Your task to perform on an android device: empty trash in google photos Image 0: 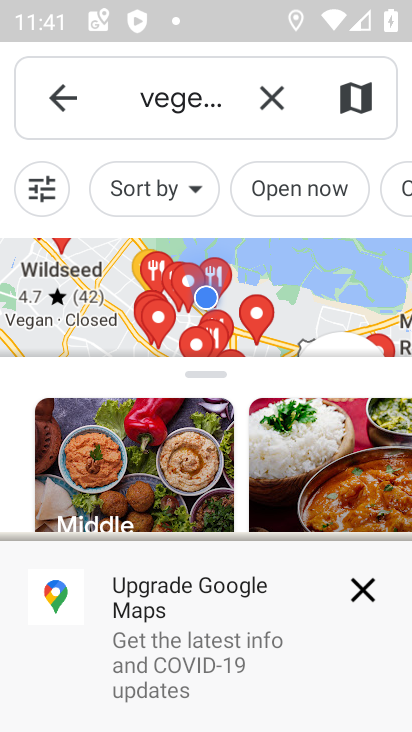
Step 0: press home button
Your task to perform on an android device: empty trash in google photos Image 1: 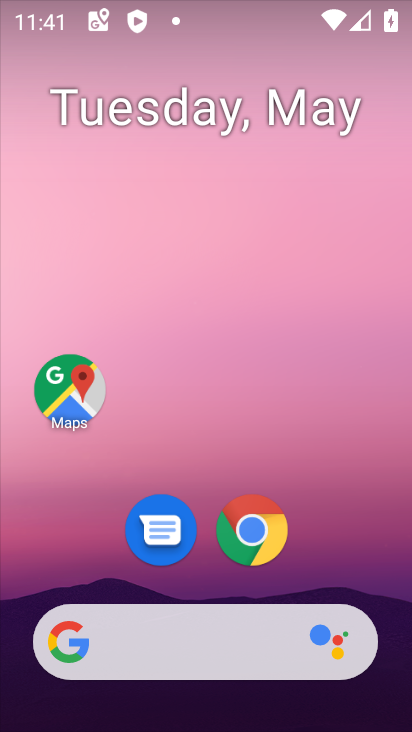
Step 1: drag from (202, 575) to (200, 180)
Your task to perform on an android device: empty trash in google photos Image 2: 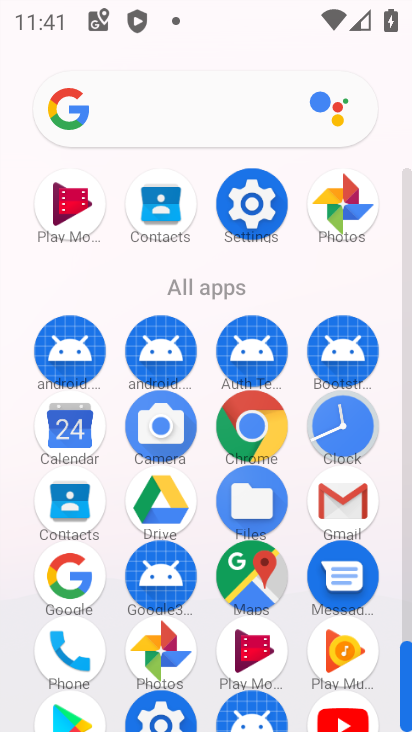
Step 2: click (342, 196)
Your task to perform on an android device: empty trash in google photos Image 3: 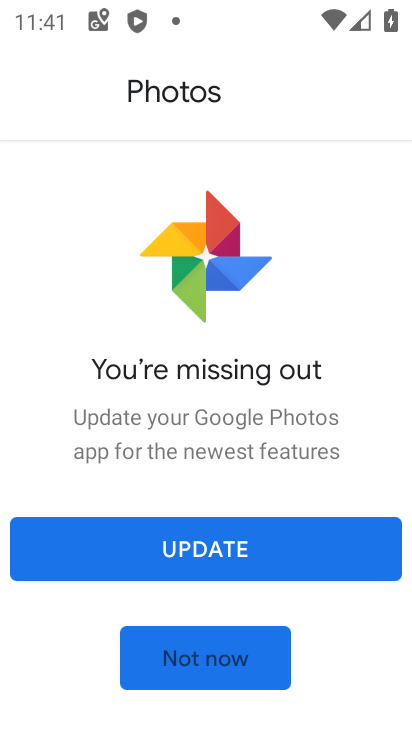
Step 3: click (201, 549)
Your task to perform on an android device: empty trash in google photos Image 4: 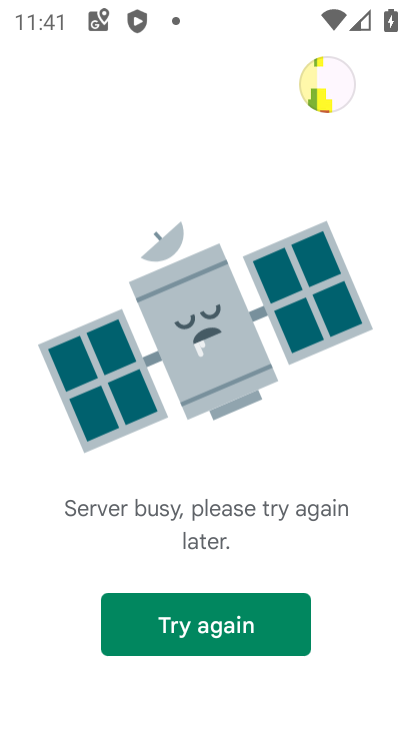
Step 4: task complete